Your task to perform on an android device: Go to CNN.com Image 0: 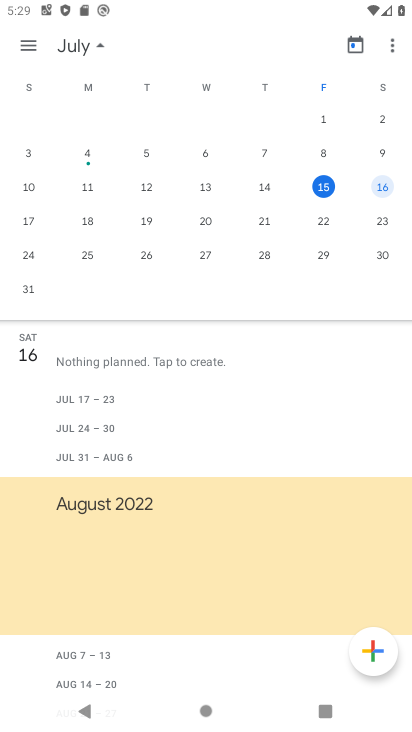
Step 0: press home button
Your task to perform on an android device: Go to CNN.com Image 1: 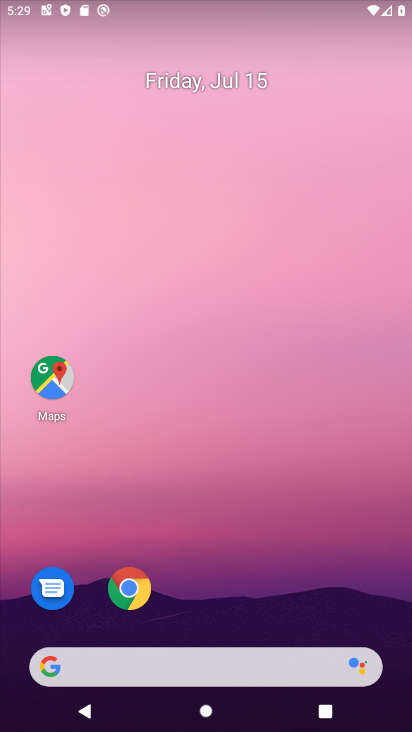
Step 1: drag from (284, 634) to (402, 70)
Your task to perform on an android device: Go to CNN.com Image 2: 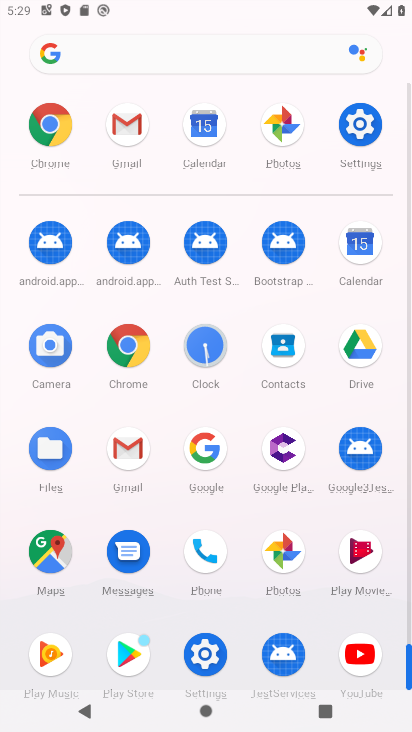
Step 2: click (148, 346)
Your task to perform on an android device: Go to CNN.com Image 3: 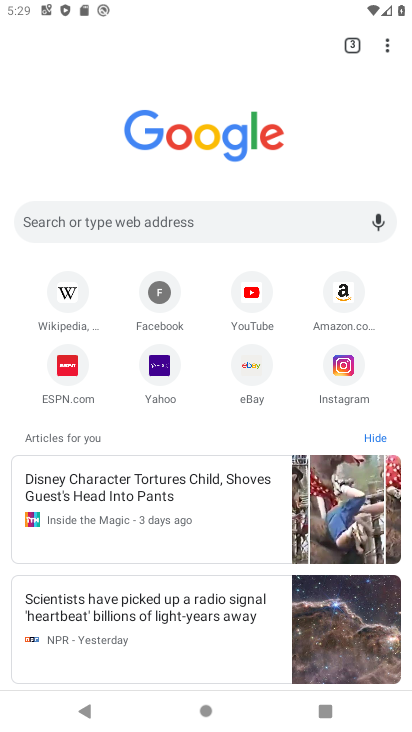
Step 3: type "cnn.com"
Your task to perform on an android device: Go to CNN.com Image 4: 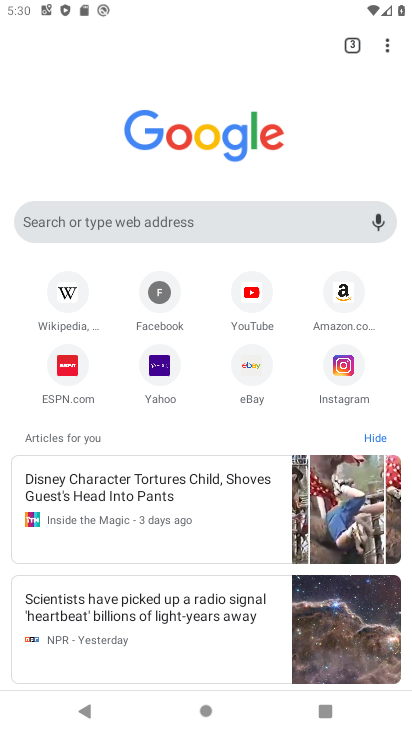
Step 4: click (188, 228)
Your task to perform on an android device: Go to CNN.com Image 5: 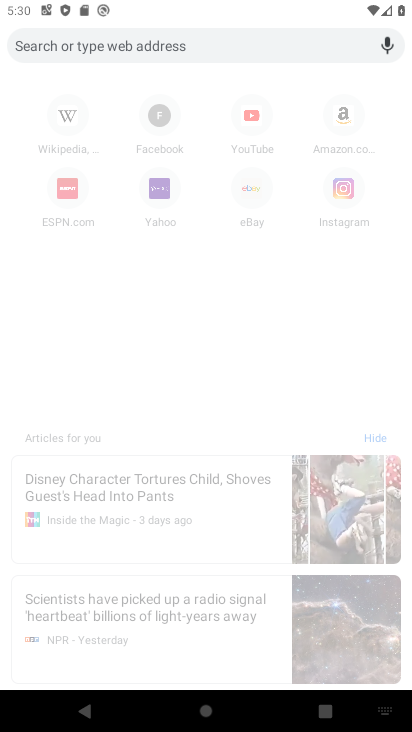
Step 5: type "cnn.com"
Your task to perform on an android device: Go to CNN.com Image 6: 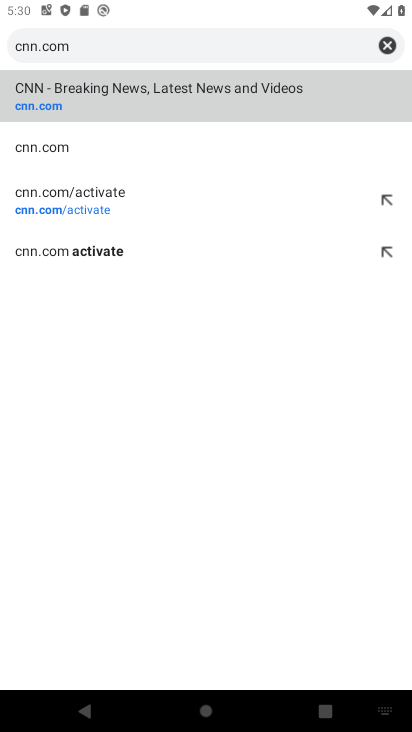
Step 6: click (266, 112)
Your task to perform on an android device: Go to CNN.com Image 7: 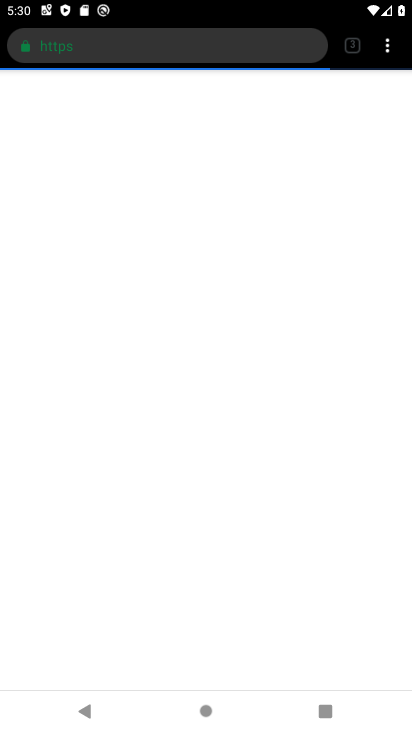
Step 7: task complete